Your task to perform on an android device: turn on wifi Image 0: 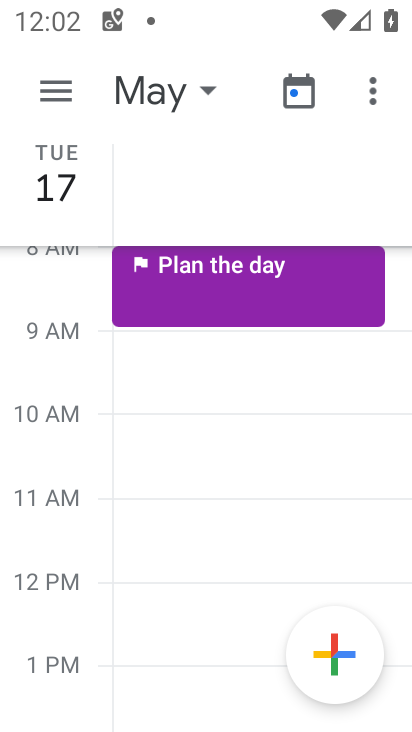
Step 0: press home button
Your task to perform on an android device: turn on wifi Image 1: 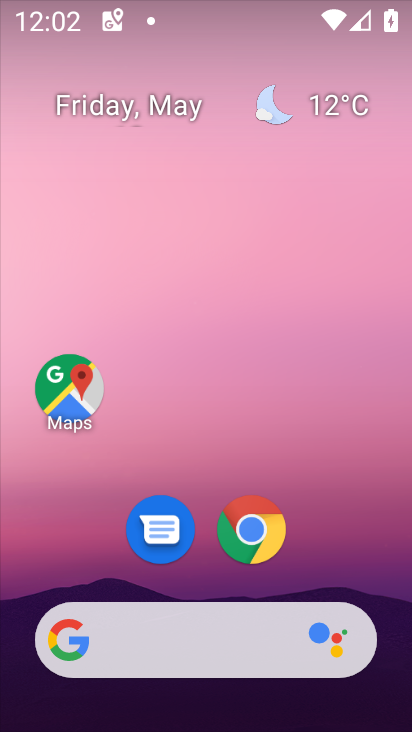
Step 1: drag from (307, 462) to (300, 254)
Your task to perform on an android device: turn on wifi Image 2: 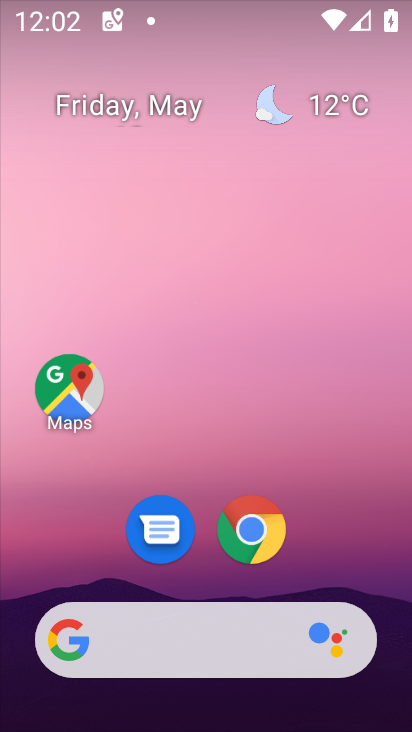
Step 2: drag from (309, 454) to (277, 167)
Your task to perform on an android device: turn on wifi Image 3: 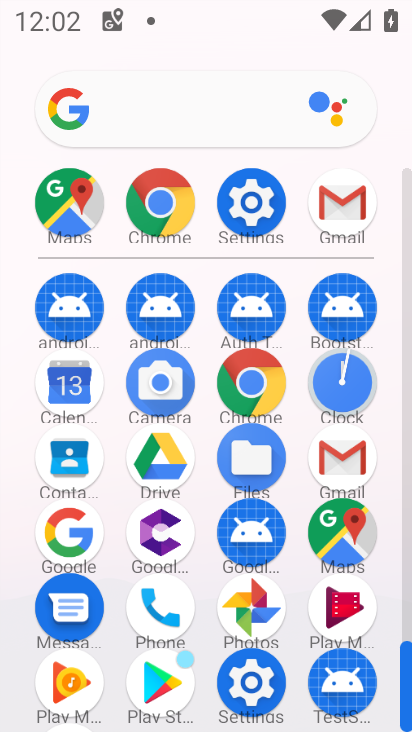
Step 3: click (262, 200)
Your task to perform on an android device: turn on wifi Image 4: 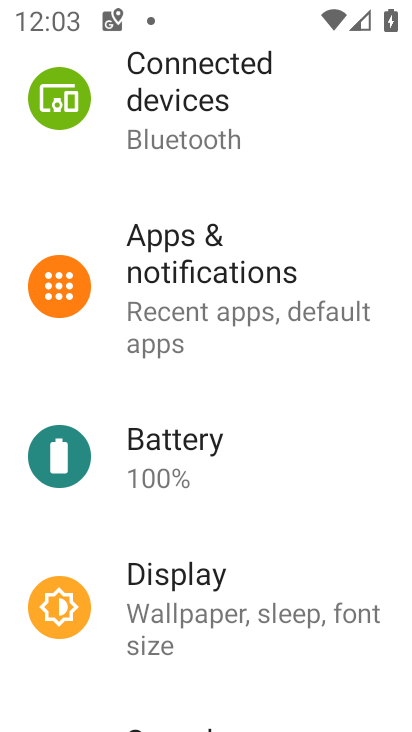
Step 4: drag from (172, 132) to (220, 640)
Your task to perform on an android device: turn on wifi Image 5: 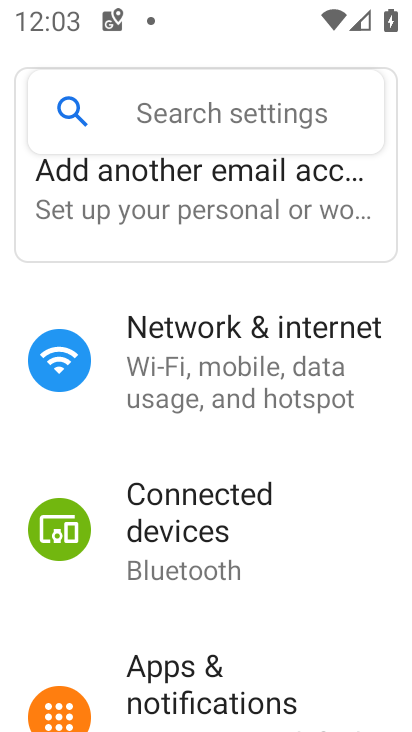
Step 5: drag from (198, 289) to (215, 483)
Your task to perform on an android device: turn on wifi Image 6: 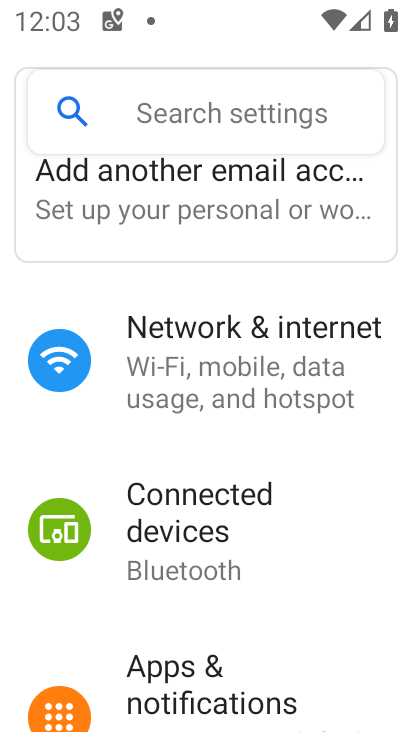
Step 6: drag from (206, 358) to (223, 513)
Your task to perform on an android device: turn on wifi Image 7: 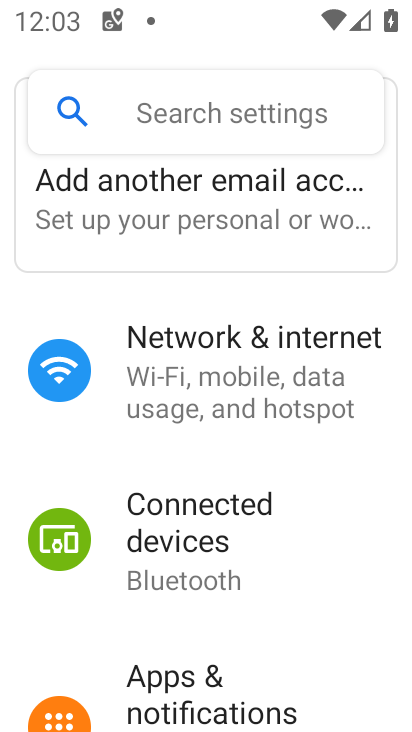
Step 7: click (217, 374)
Your task to perform on an android device: turn on wifi Image 8: 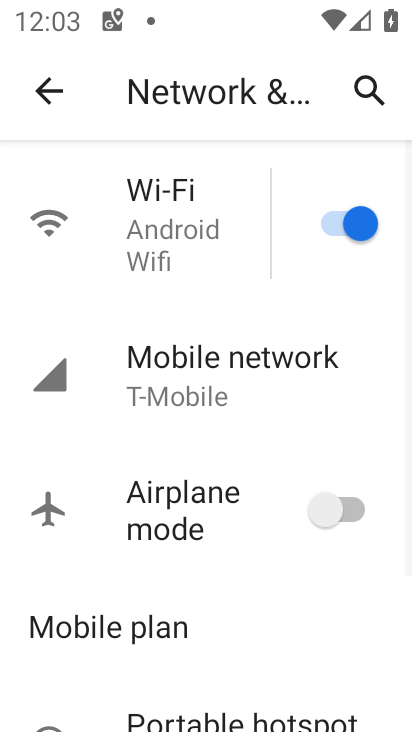
Step 8: task complete